Your task to perform on an android device: change the clock display to digital Image 0: 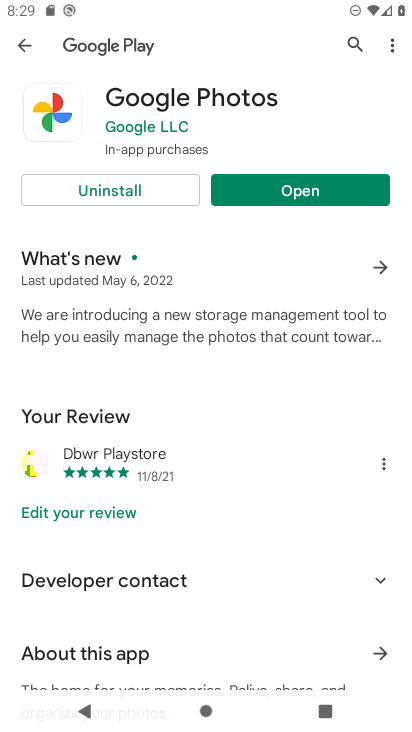
Step 0: press home button
Your task to perform on an android device: change the clock display to digital Image 1: 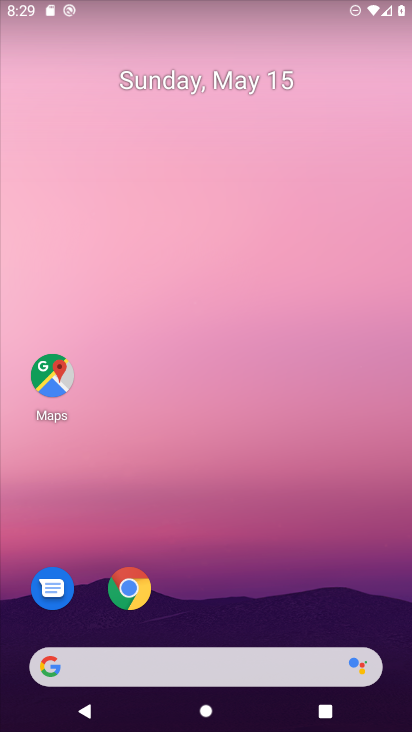
Step 1: drag from (198, 617) to (212, 478)
Your task to perform on an android device: change the clock display to digital Image 2: 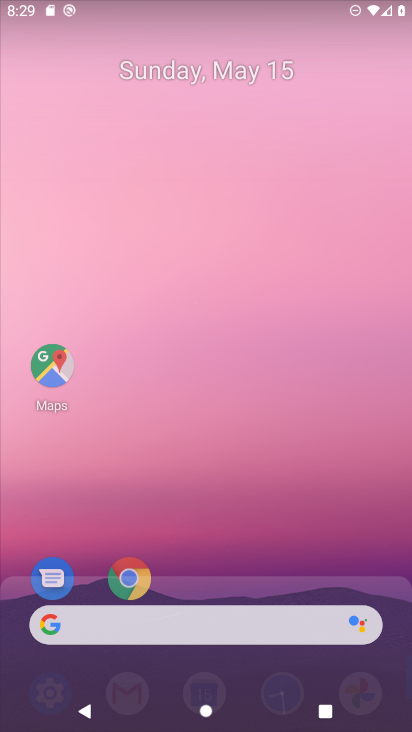
Step 2: click (228, 210)
Your task to perform on an android device: change the clock display to digital Image 3: 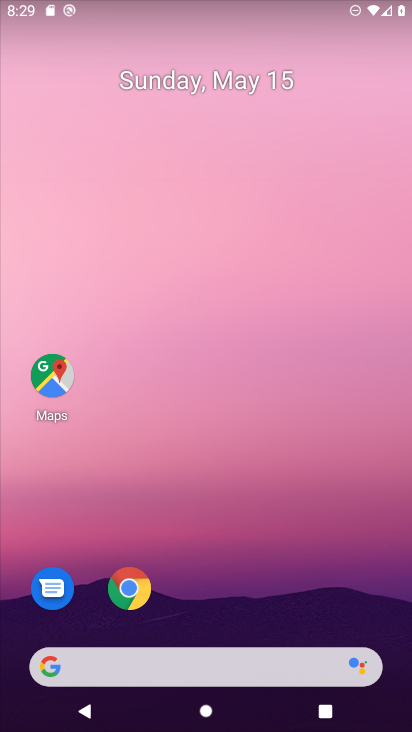
Step 3: drag from (208, 585) to (209, 58)
Your task to perform on an android device: change the clock display to digital Image 4: 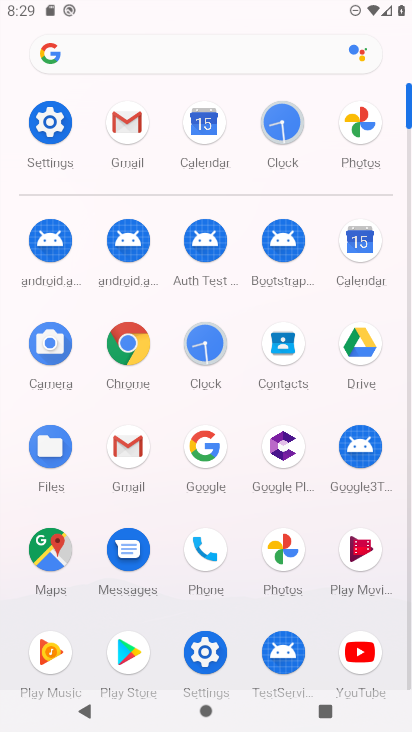
Step 4: click (205, 338)
Your task to perform on an android device: change the clock display to digital Image 5: 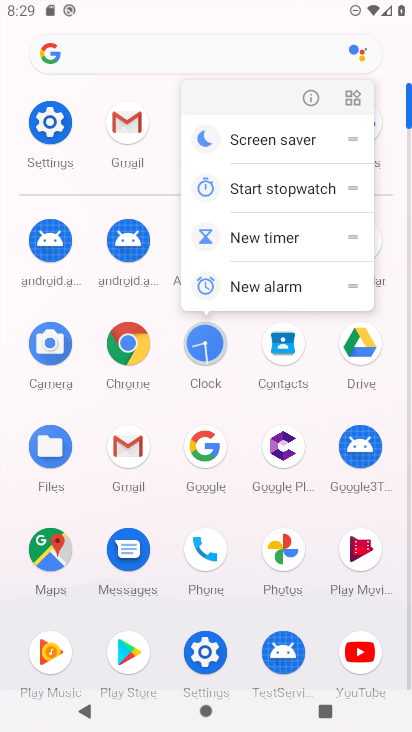
Step 5: click (207, 333)
Your task to perform on an android device: change the clock display to digital Image 6: 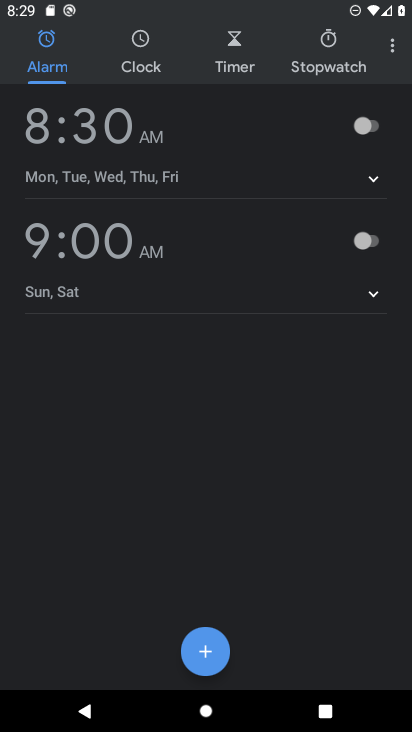
Step 6: click (391, 41)
Your task to perform on an android device: change the clock display to digital Image 7: 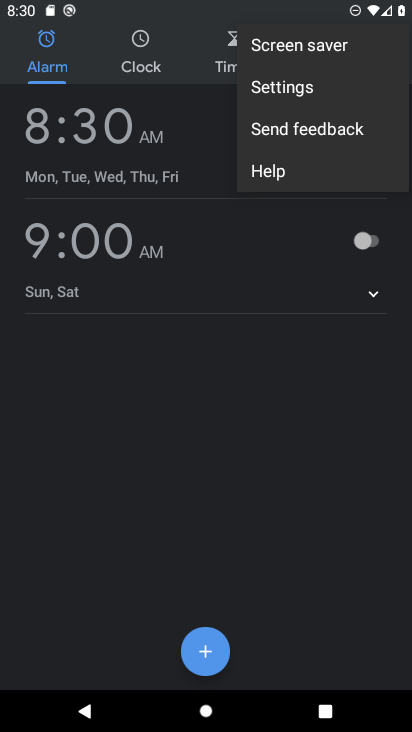
Step 7: click (305, 89)
Your task to perform on an android device: change the clock display to digital Image 8: 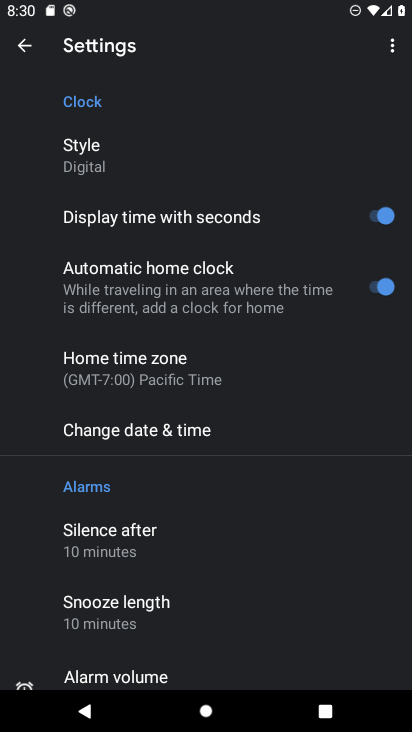
Step 8: click (122, 157)
Your task to perform on an android device: change the clock display to digital Image 9: 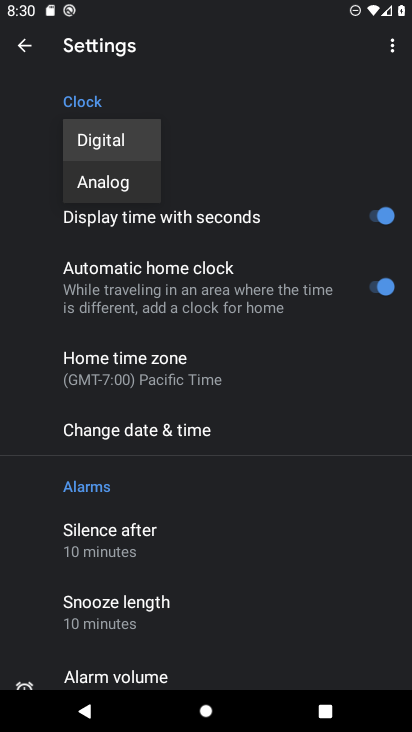
Step 9: click (130, 144)
Your task to perform on an android device: change the clock display to digital Image 10: 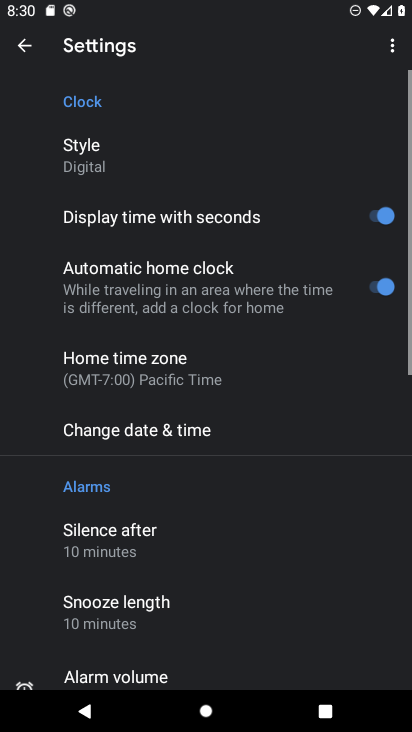
Step 10: task complete